Your task to perform on an android device: turn on translation in the chrome app Image 0: 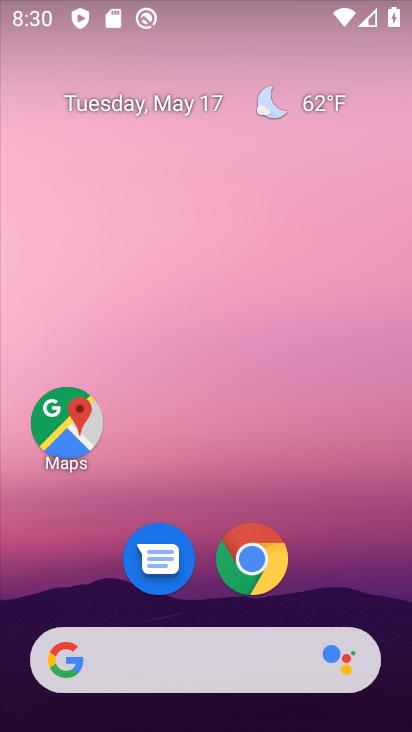
Step 0: click (262, 550)
Your task to perform on an android device: turn on translation in the chrome app Image 1: 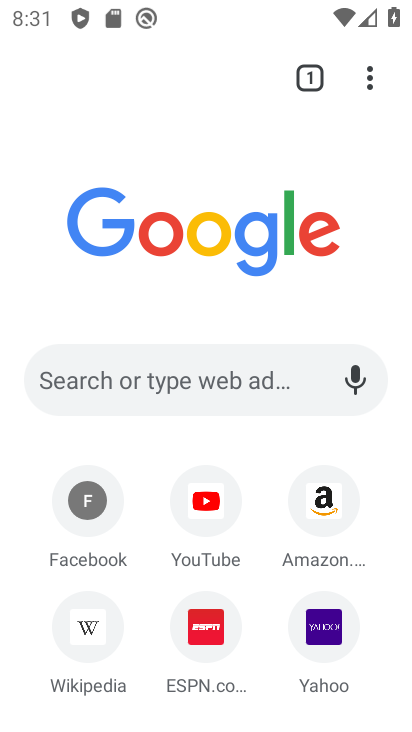
Step 1: drag from (357, 71) to (153, 619)
Your task to perform on an android device: turn on translation in the chrome app Image 2: 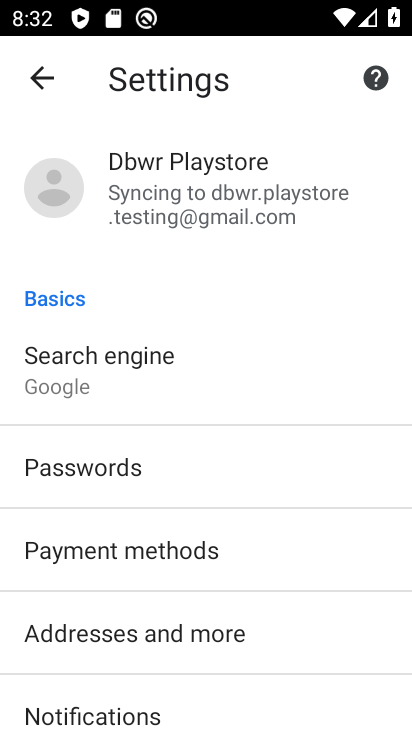
Step 2: drag from (160, 663) to (115, 185)
Your task to perform on an android device: turn on translation in the chrome app Image 3: 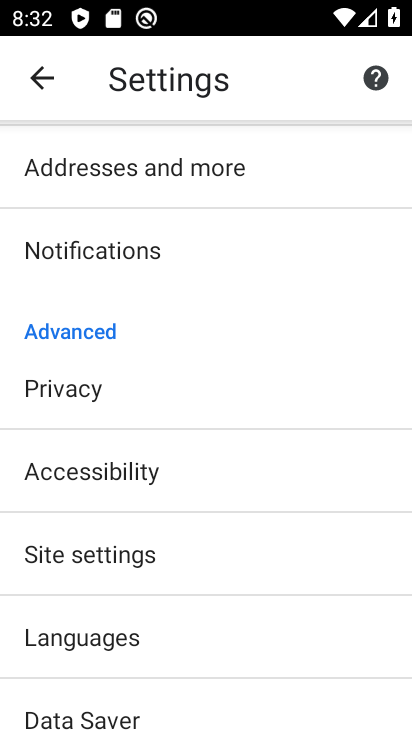
Step 3: click (139, 634)
Your task to perform on an android device: turn on translation in the chrome app Image 4: 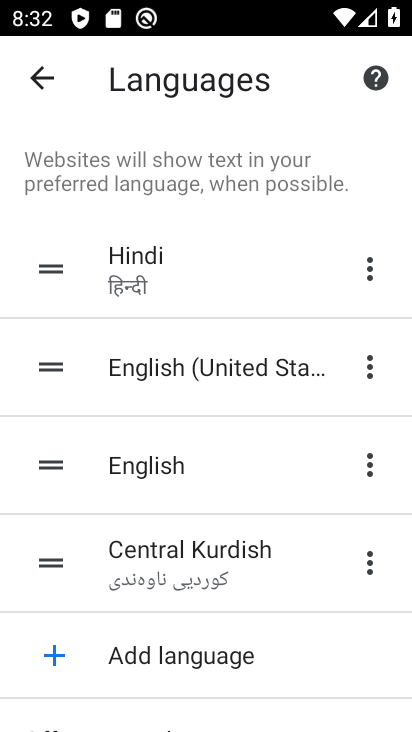
Step 4: drag from (224, 244) to (202, 27)
Your task to perform on an android device: turn on translation in the chrome app Image 5: 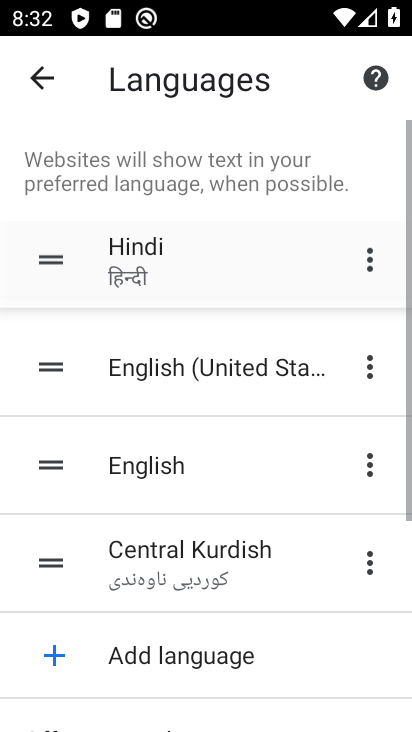
Step 5: drag from (253, 643) to (194, 204)
Your task to perform on an android device: turn on translation in the chrome app Image 6: 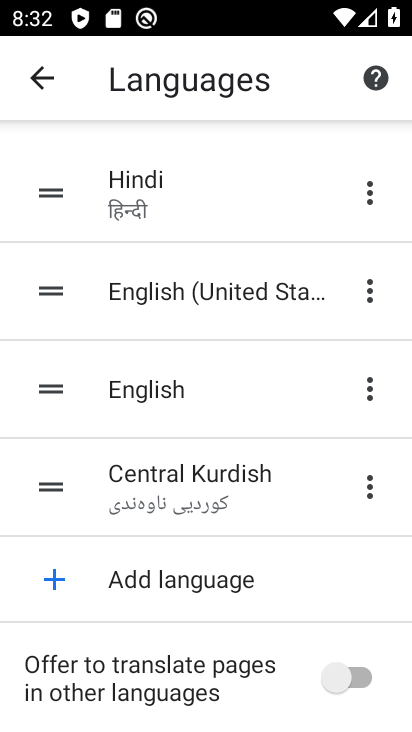
Step 6: click (341, 682)
Your task to perform on an android device: turn on translation in the chrome app Image 7: 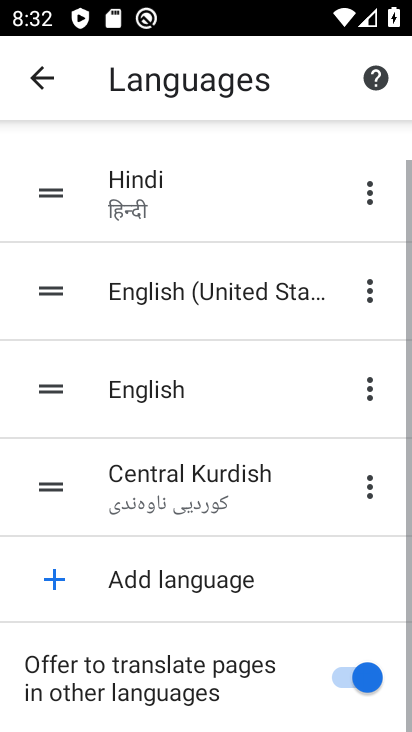
Step 7: task complete